Your task to perform on an android device: Search for logitech g pro on newegg.com, select the first entry, and add it to the cart. Image 0: 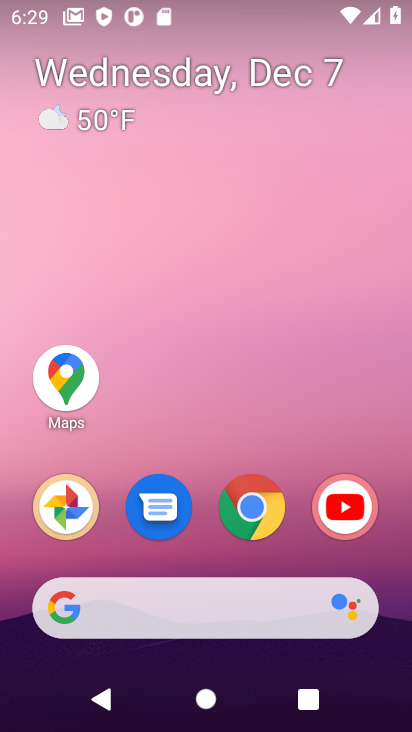
Step 0: drag from (261, 427) to (402, 43)
Your task to perform on an android device: Search for logitech g pro on newegg.com, select the first entry, and add it to the cart. Image 1: 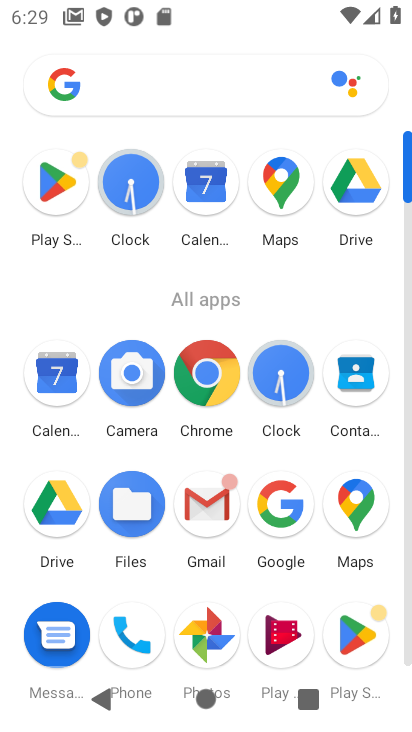
Step 1: drag from (274, 544) to (383, 153)
Your task to perform on an android device: Search for logitech g pro on newegg.com, select the first entry, and add it to the cart. Image 2: 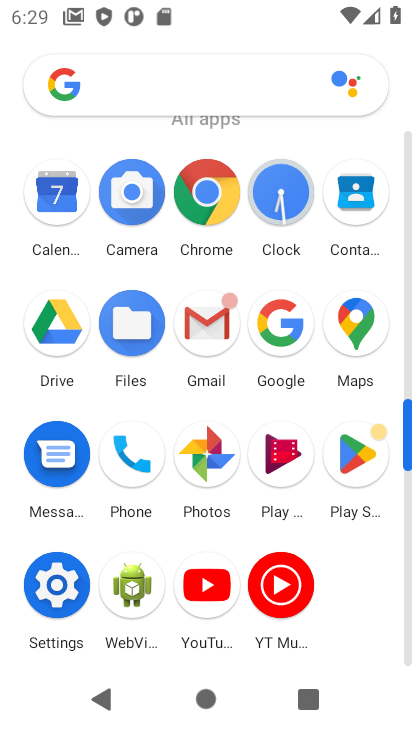
Step 2: click (56, 588)
Your task to perform on an android device: Search for logitech g pro on newegg.com, select the first entry, and add it to the cart. Image 3: 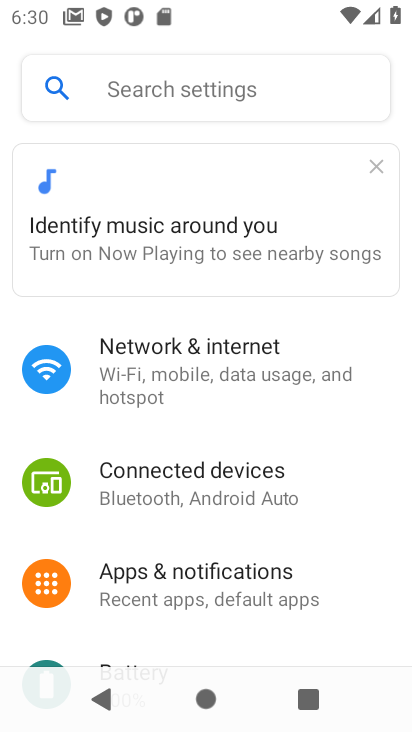
Step 3: drag from (223, 575) to (322, 137)
Your task to perform on an android device: Search for logitech g pro on newegg.com, select the first entry, and add it to the cart. Image 4: 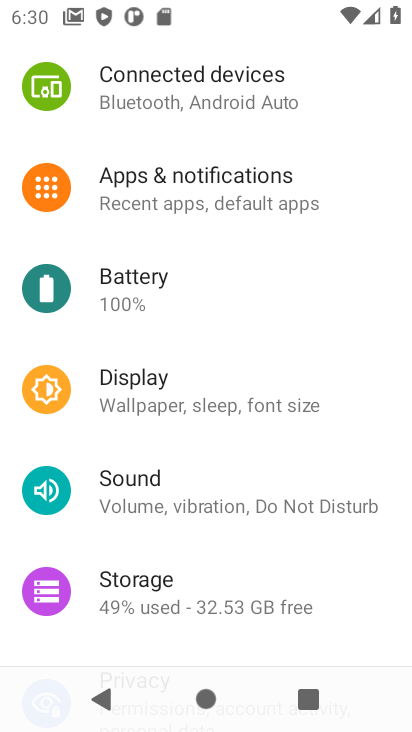
Step 4: click (137, 399)
Your task to perform on an android device: Search for logitech g pro on newegg.com, select the first entry, and add it to the cart. Image 5: 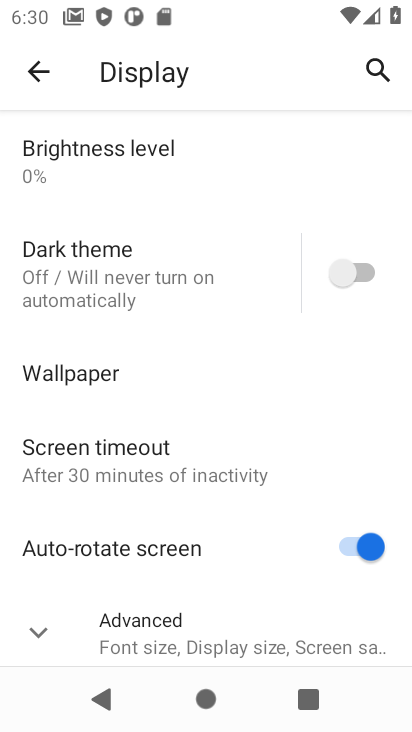
Step 5: click (179, 635)
Your task to perform on an android device: Search for logitech g pro on newegg.com, select the first entry, and add it to the cart. Image 6: 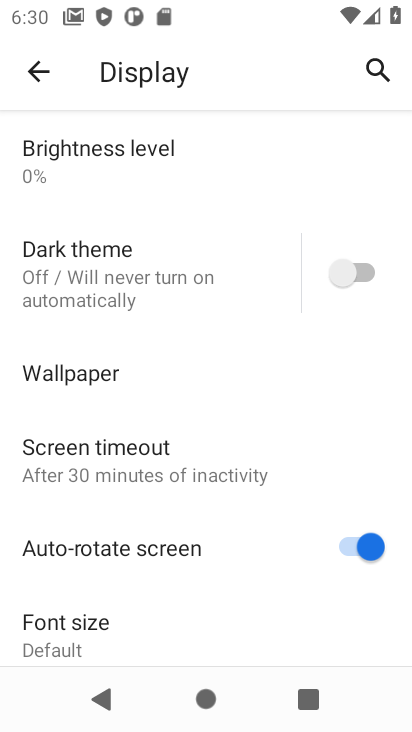
Step 6: drag from (70, 631) to (119, 331)
Your task to perform on an android device: Search for logitech g pro on newegg.com, select the first entry, and add it to the cart. Image 7: 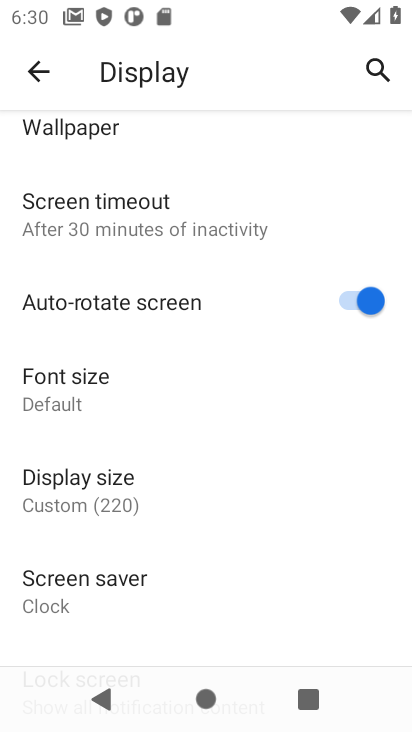
Step 7: click (91, 496)
Your task to perform on an android device: Search for logitech g pro on newegg.com, select the first entry, and add it to the cart. Image 8: 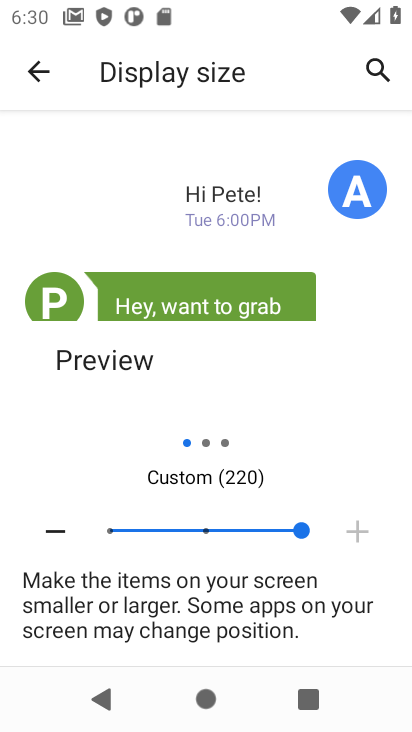
Step 8: click (114, 530)
Your task to perform on an android device: Search for logitech g pro on newegg.com, select the first entry, and add it to the cart. Image 9: 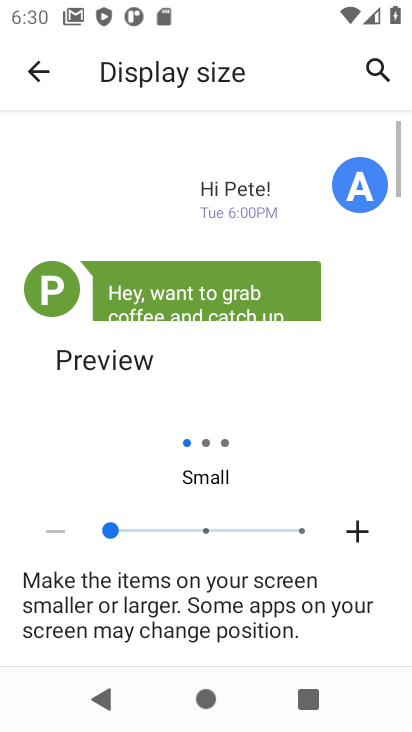
Step 9: click (114, 530)
Your task to perform on an android device: Search for logitech g pro on newegg.com, select the first entry, and add it to the cart. Image 10: 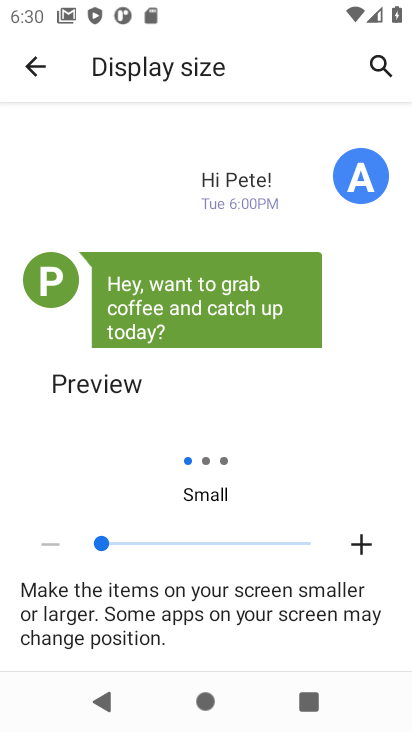
Step 10: press home button
Your task to perform on an android device: Search for logitech g pro on newegg.com, select the first entry, and add it to the cart. Image 11: 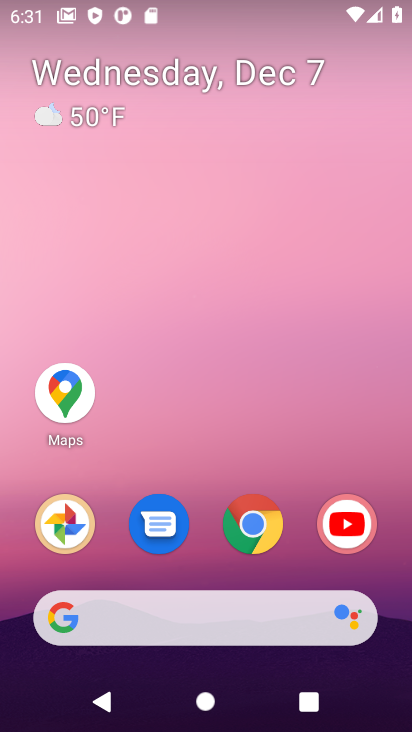
Step 11: click (250, 526)
Your task to perform on an android device: Search for logitech g pro on newegg.com, select the first entry, and add it to the cart. Image 12: 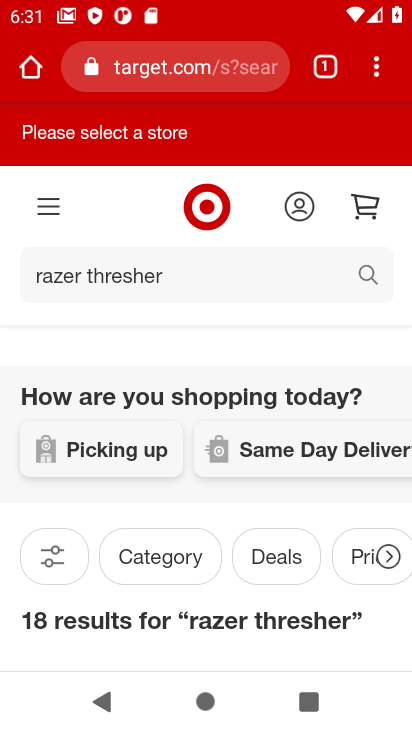
Step 12: click (324, 69)
Your task to perform on an android device: Search for logitech g pro on newegg.com, select the first entry, and add it to the cart. Image 13: 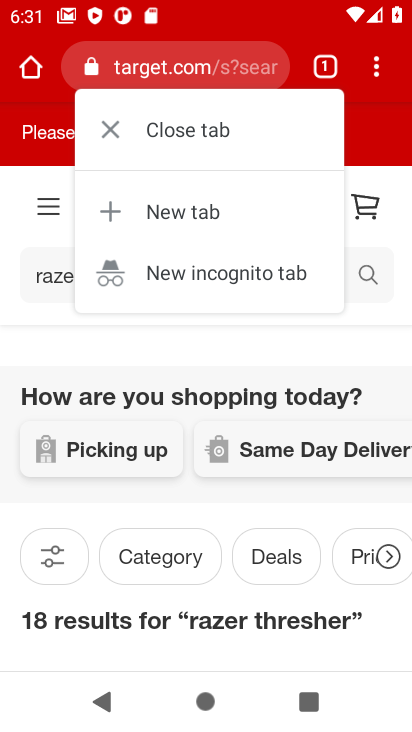
Step 13: click (328, 71)
Your task to perform on an android device: Search for logitech g pro on newegg.com, select the first entry, and add it to the cart. Image 14: 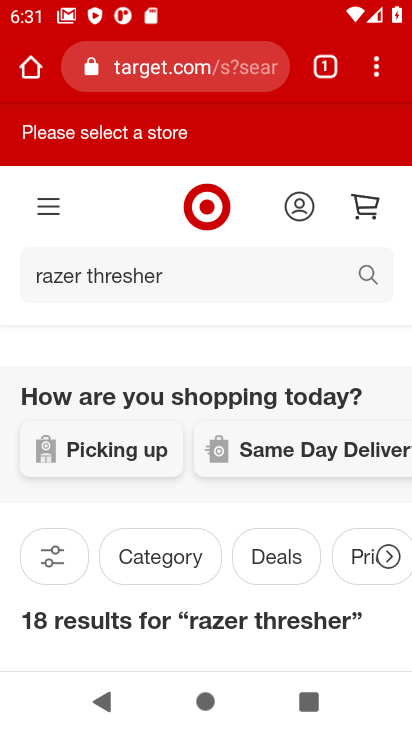
Step 14: click (321, 71)
Your task to perform on an android device: Search for logitech g pro on newegg.com, select the first entry, and add it to the cart. Image 15: 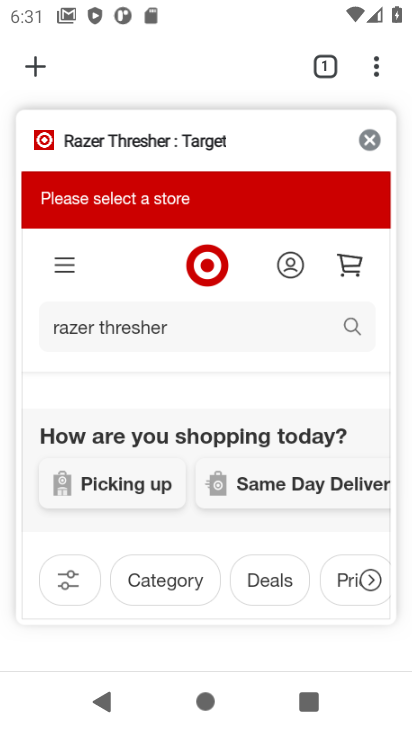
Step 15: click (42, 61)
Your task to perform on an android device: Search for logitech g pro on newegg.com, select the first entry, and add it to the cart. Image 16: 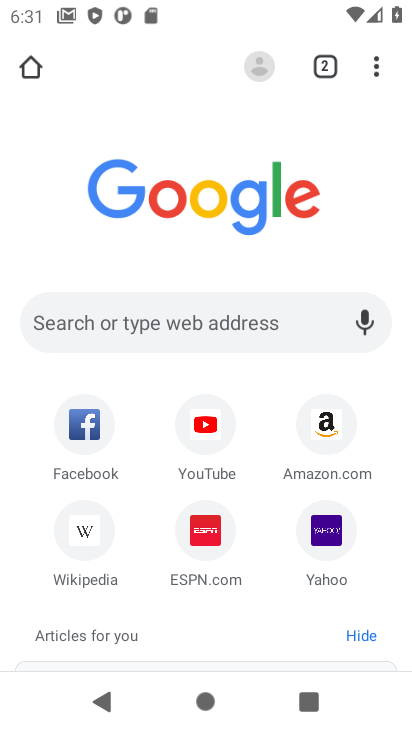
Step 16: click (175, 323)
Your task to perform on an android device: Search for logitech g pro on newegg.com, select the first entry, and add it to the cart. Image 17: 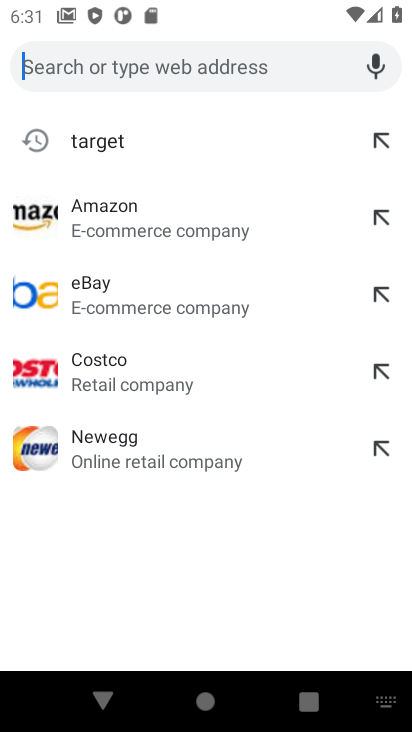
Step 17: type "newee"
Your task to perform on an android device: Search for logitech g pro on newegg.com, select the first entry, and add it to the cart. Image 18: 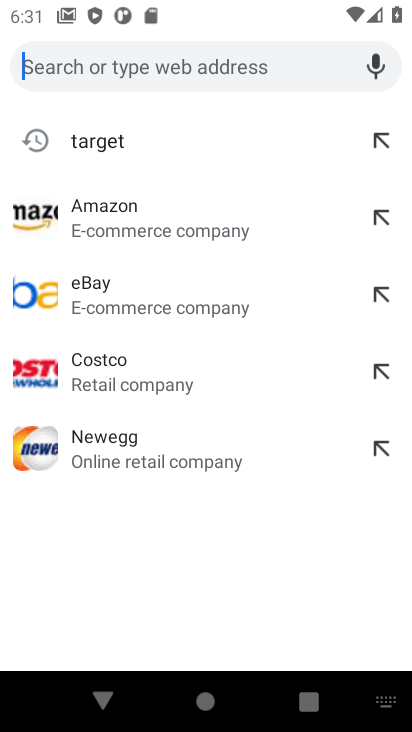
Step 18: click (137, 439)
Your task to perform on an android device: Search for logitech g pro on newegg.com, select the first entry, and add it to the cart. Image 19: 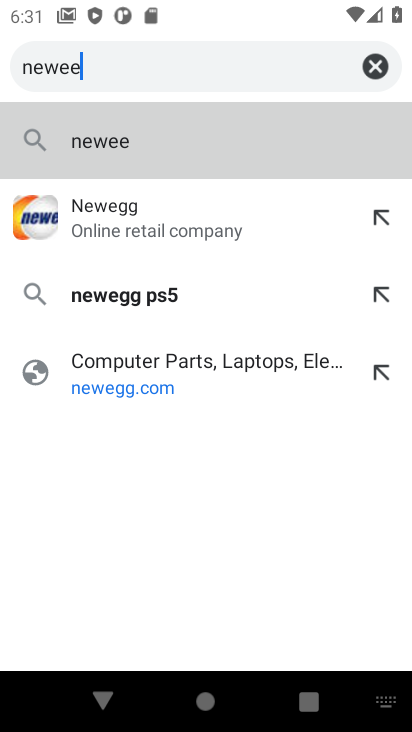
Step 19: click (149, 225)
Your task to perform on an android device: Search for logitech g pro on newegg.com, select the first entry, and add it to the cart. Image 20: 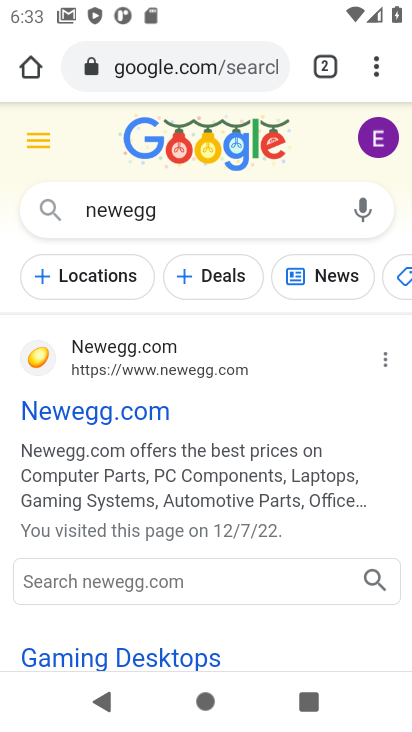
Step 20: click (136, 406)
Your task to perform on an android device: Search for logitech g pro on newegg.com, select the first entry, and add it to the cart. Image 21: 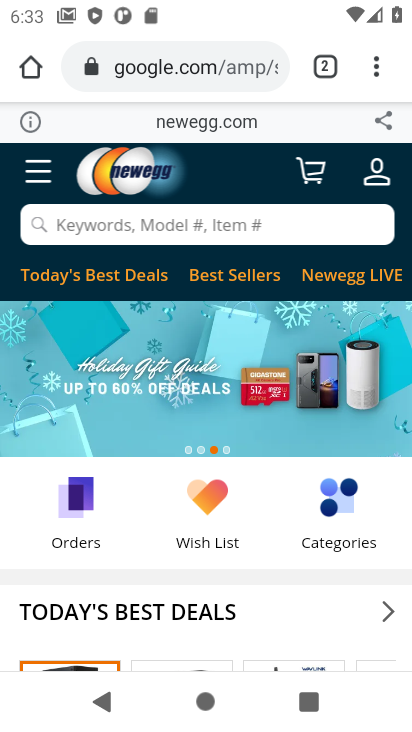
Step 21: click (167, 234)
Your task to perform on an android device: Search for logitech g pro on newegg.com, select the first entry, and add it to the cart. Image 22: 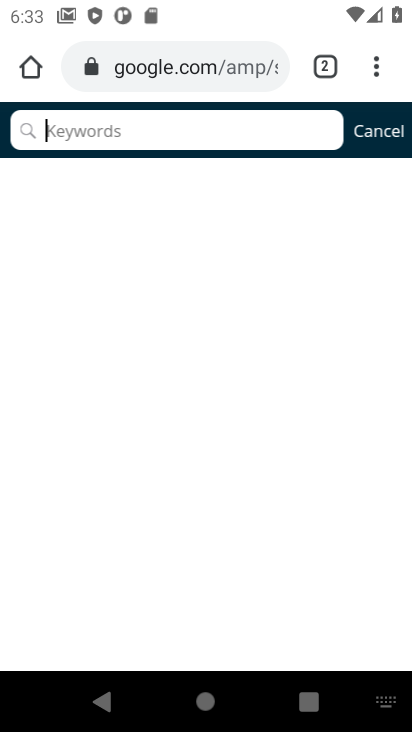
Step 22: type "logitech g pro"
Your task to perform on an android device: Search for logitech g pro on newegg.com, select the first entry, and add it to the cart. Image 23: 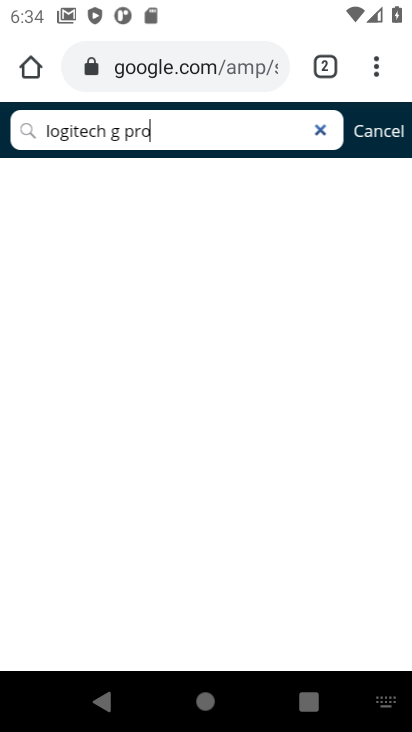
Step 23: press enter
Your task to perform on an android device: Search for logitech g pro on newegg.com, select the first entry, and add it to the cart. Image 24: 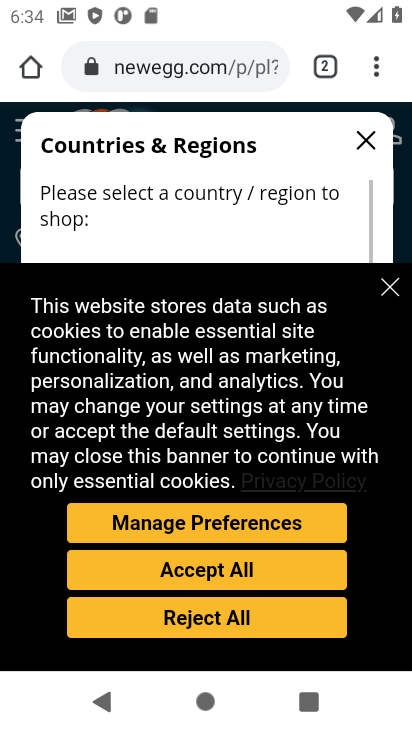
Step 24: click (218, 619)
Your task to perform on an android device: Search for logitech g pro on newegg.com, select the first entry, and add it to the cart. Image 25: 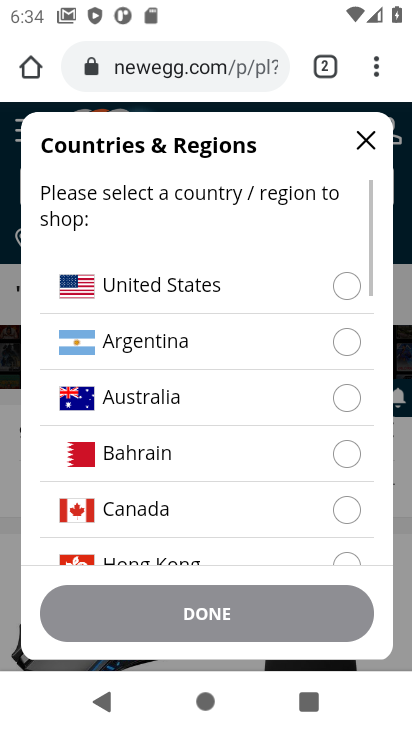
Step 25: click (337, 280)
Your task to perform on an android device: Search for logitech g pro on newegg.com, select the first entry, and add it to the cart. Image 26: 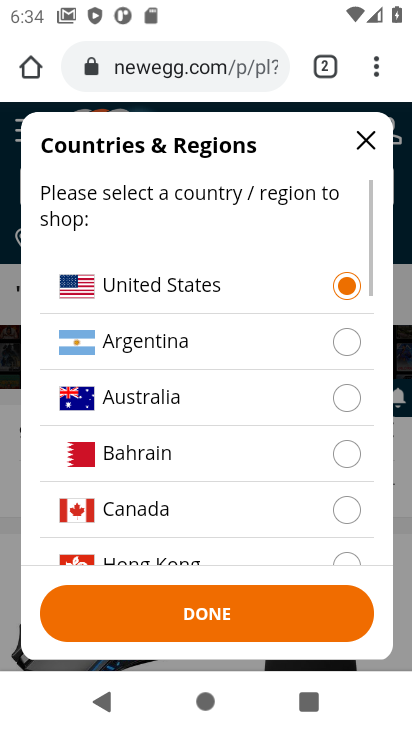
Step 26: click (194, 615)
Your task to perform on an android device: Search for logitech g pro on newegg.com, select the first entry, and add it to the cart. Image 27: 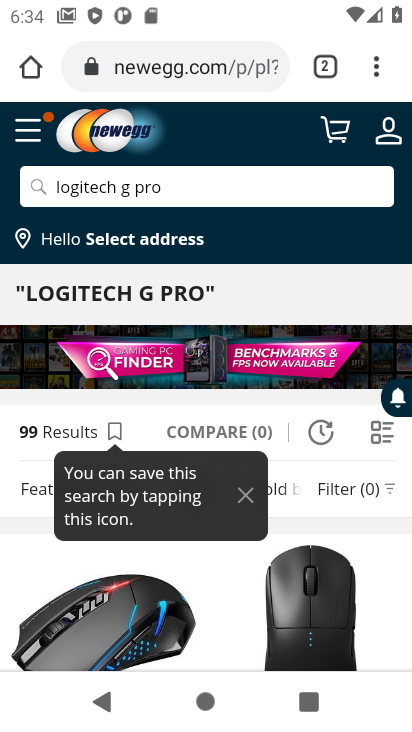
Step 27: click (67, 622)
Your task to perform on an android device: Search for logitech g pro on newegg.com, select the first entry, and add it to the cart. Image 28: 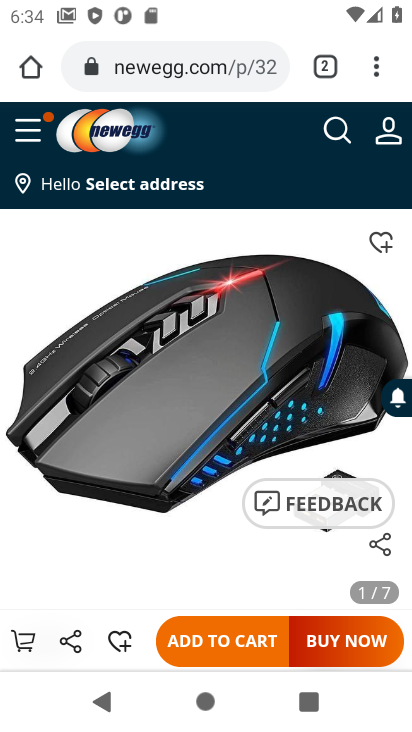
Step 28: click (196, 645)
Your task to perform on an android device: Search for logitech g pro on newegg.com, select the first entry, and add it to the cart. Image 29: 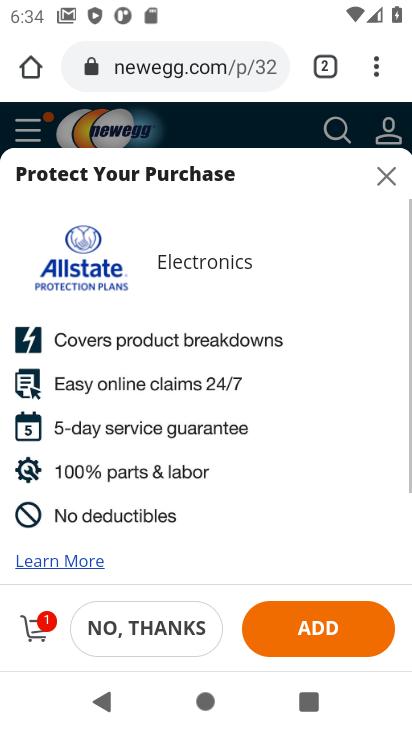
Step 29: task complete